Your task to perform on an android device: open app "WhatsApp Messenger" (install if not already installed), go to login, and select forgot password Image 0: 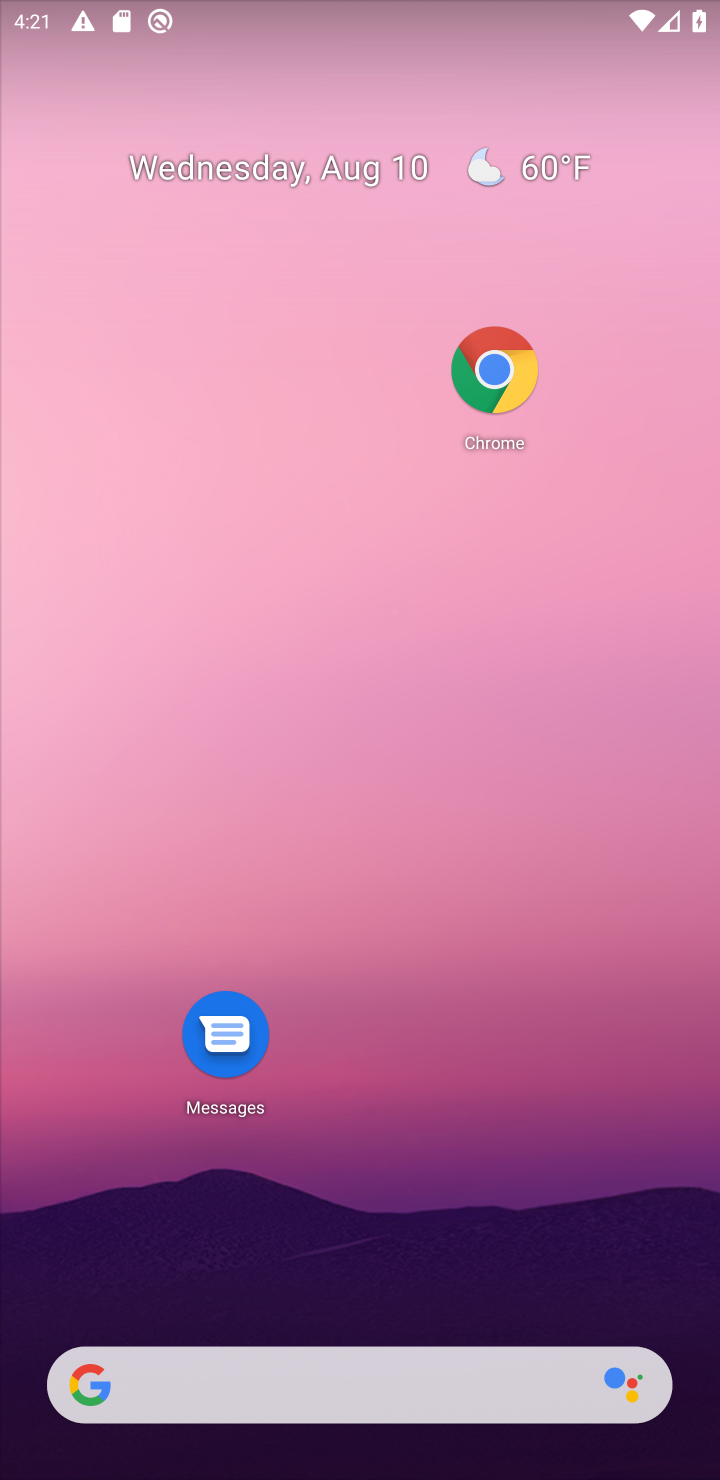
Step 0: drag from (384, 1007) to (443, 77)
Your task to perform on an android device: open app "WhatsApp Messenger" (install if not already installed), go to login, and select forgot password Image 1: 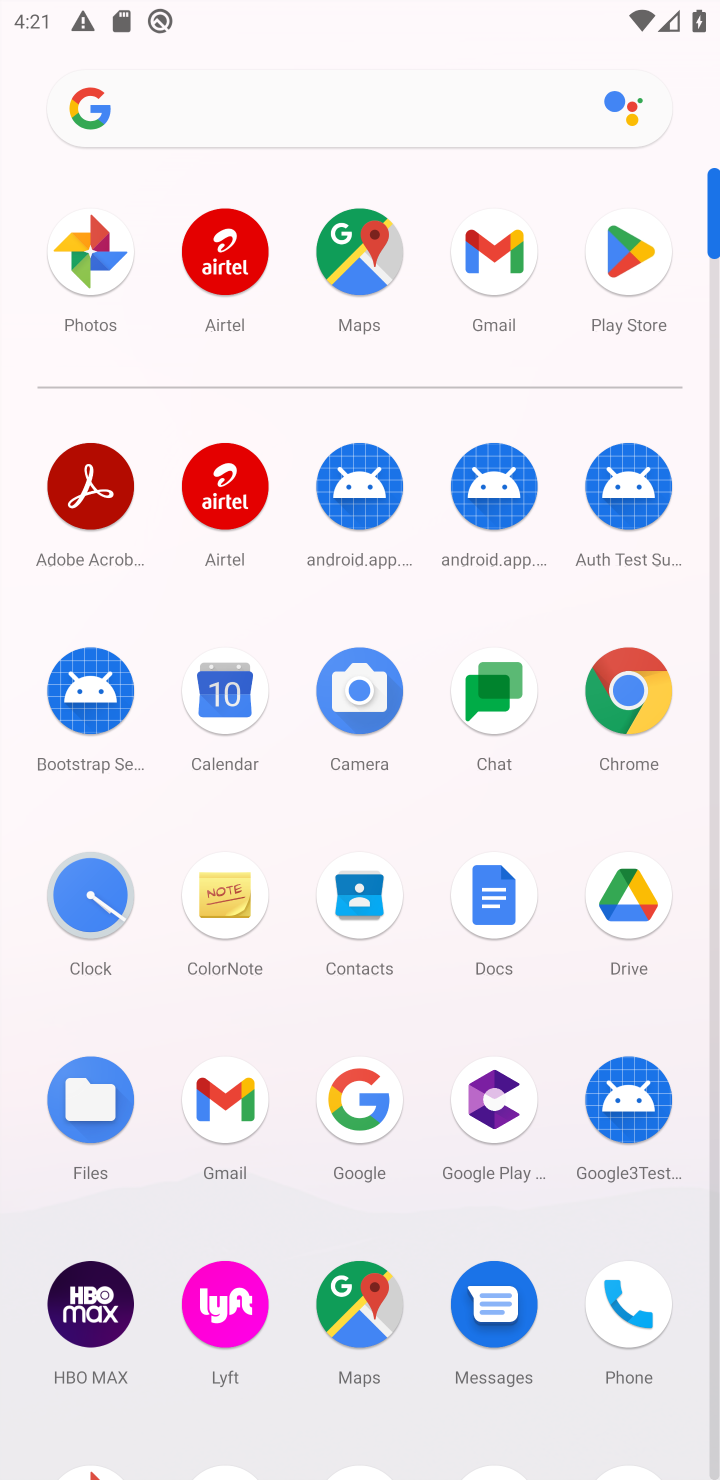
Step 1: click (661, 269)
Your task to perform on an android device: open app "WhatsApp Messenger" (install if not already installed), go to login, and select forgot password Image 2: 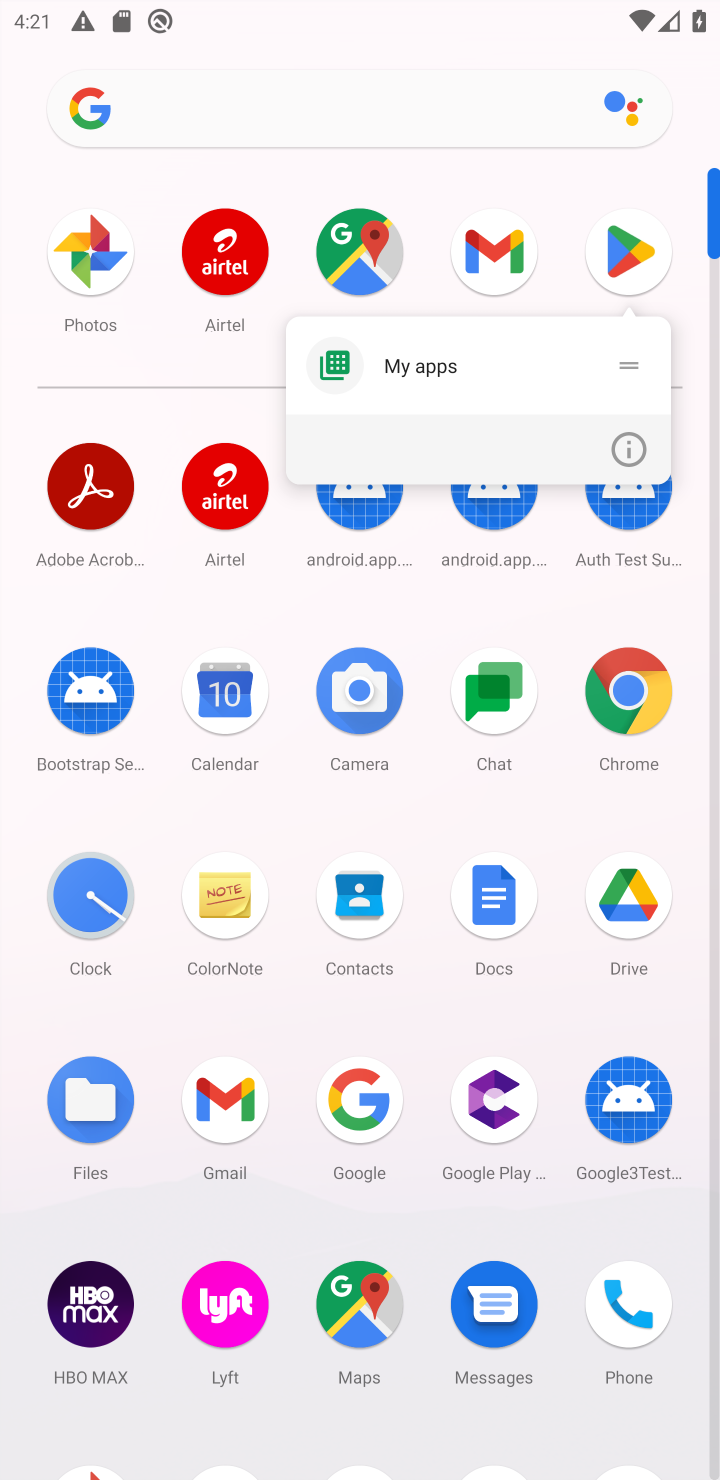
Step 2: click (605, 250)
Your task to perform on an android device: open app "WhatsApp Messenger" (install if not already installed), go to login, and select forgot password Image 3: 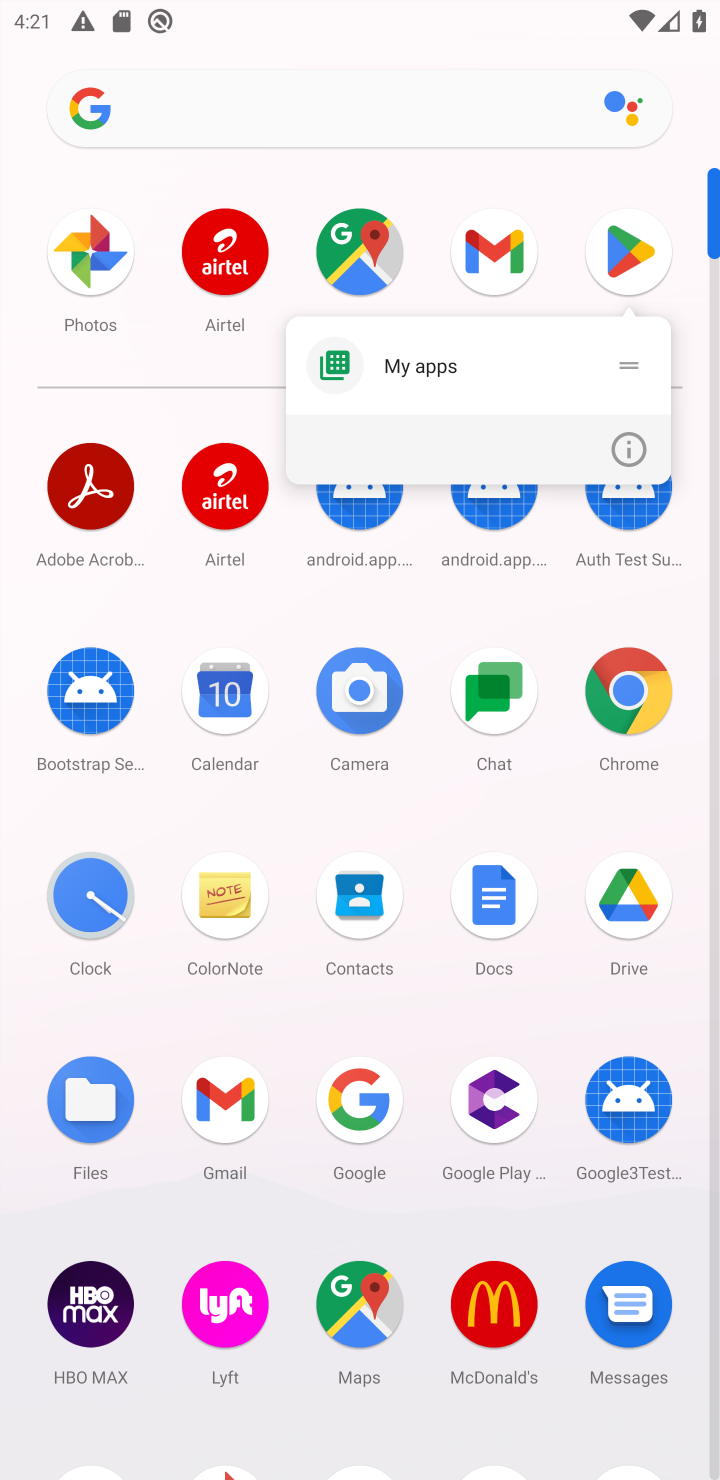
Step 3: click (613, 250)
Your task to perform on an android device: open app "WhatsApp Messenger" (install if not already installed), go to login, and select forgot password Image 4: 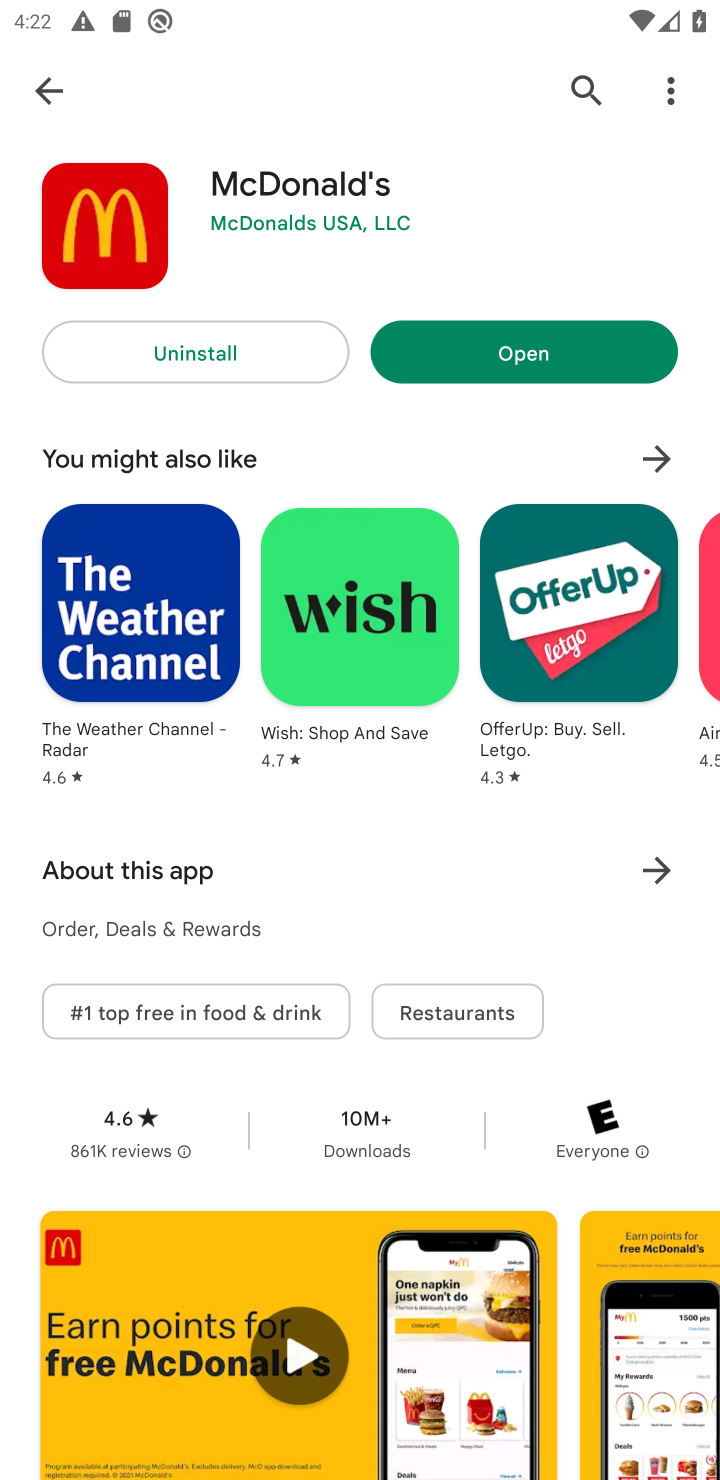
Step 4: click (70, 65)
Your task to perform on an android device: open app "WhatsApp Messenger" (install if not already installed), go to login, and select forgot password Image 5: 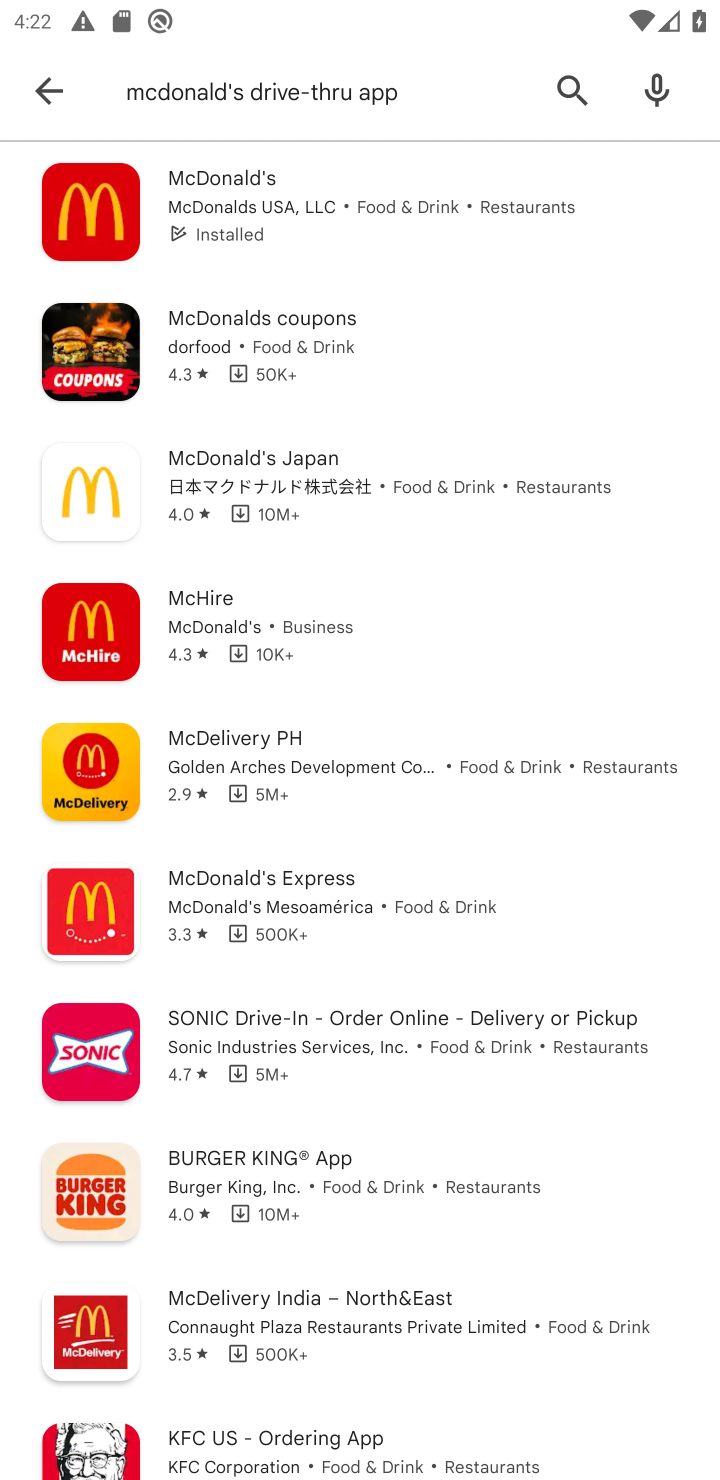
Step 5: click (571, 74)
Your task to perform on an android device: open app "WhatsApp Messenger" (install if not already installed), go to login, and select forgot password Image 6: 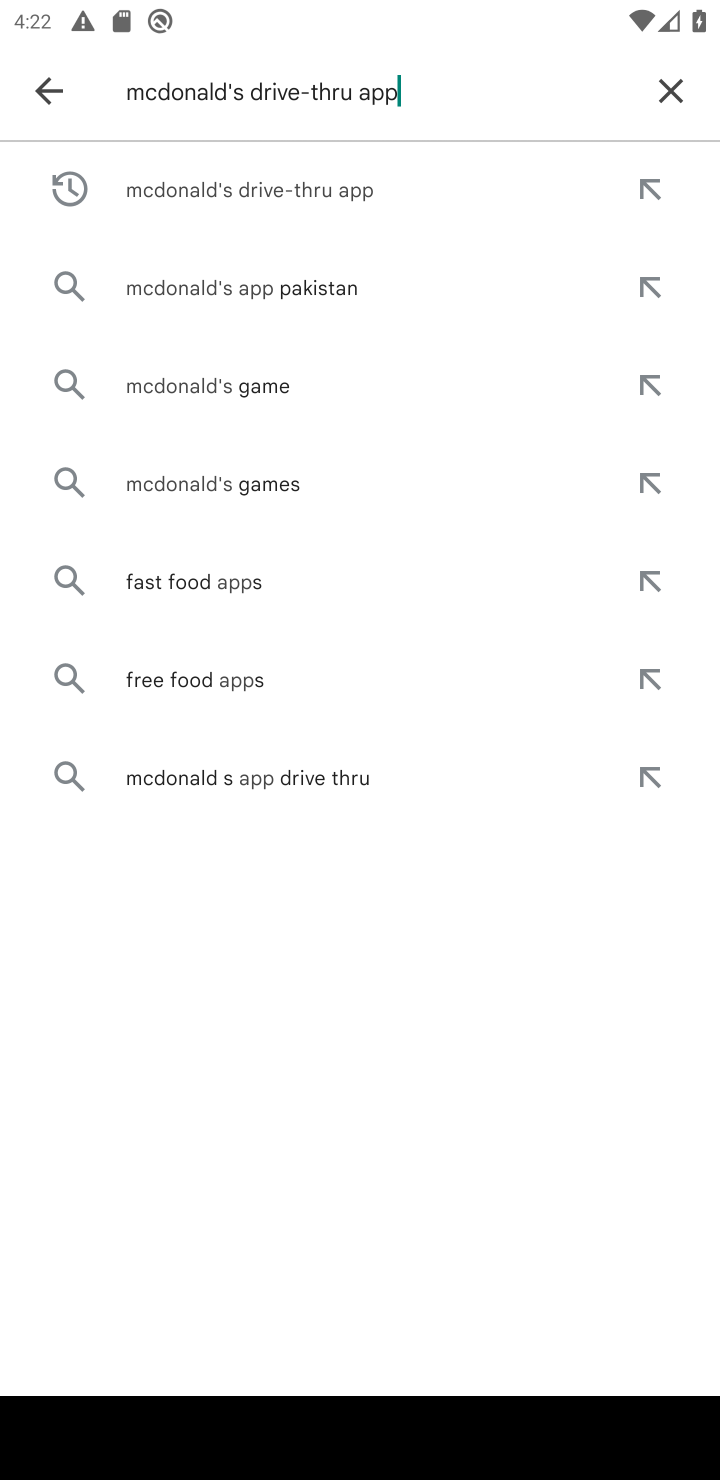
Step 6: click (680, 93)
Your task to perform on an android device: open app "WhatsApp Messenger" (install if not already installed), go to login, and select forgot password Image 7: 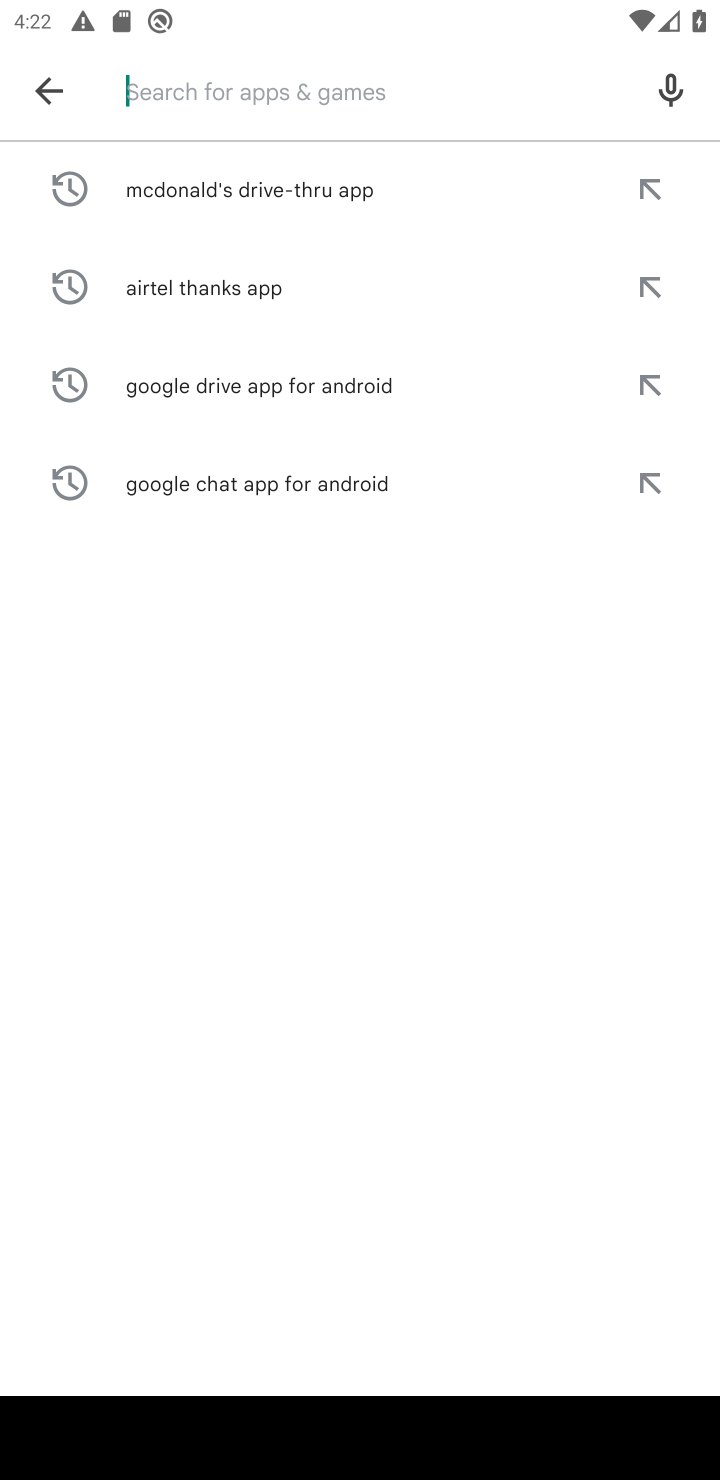
Step 7: click (425, 76)
Your task to perform on an android device: open app "WhatsApp Messenger" (install if not already installed), go to login, and select forgot password Image 8: 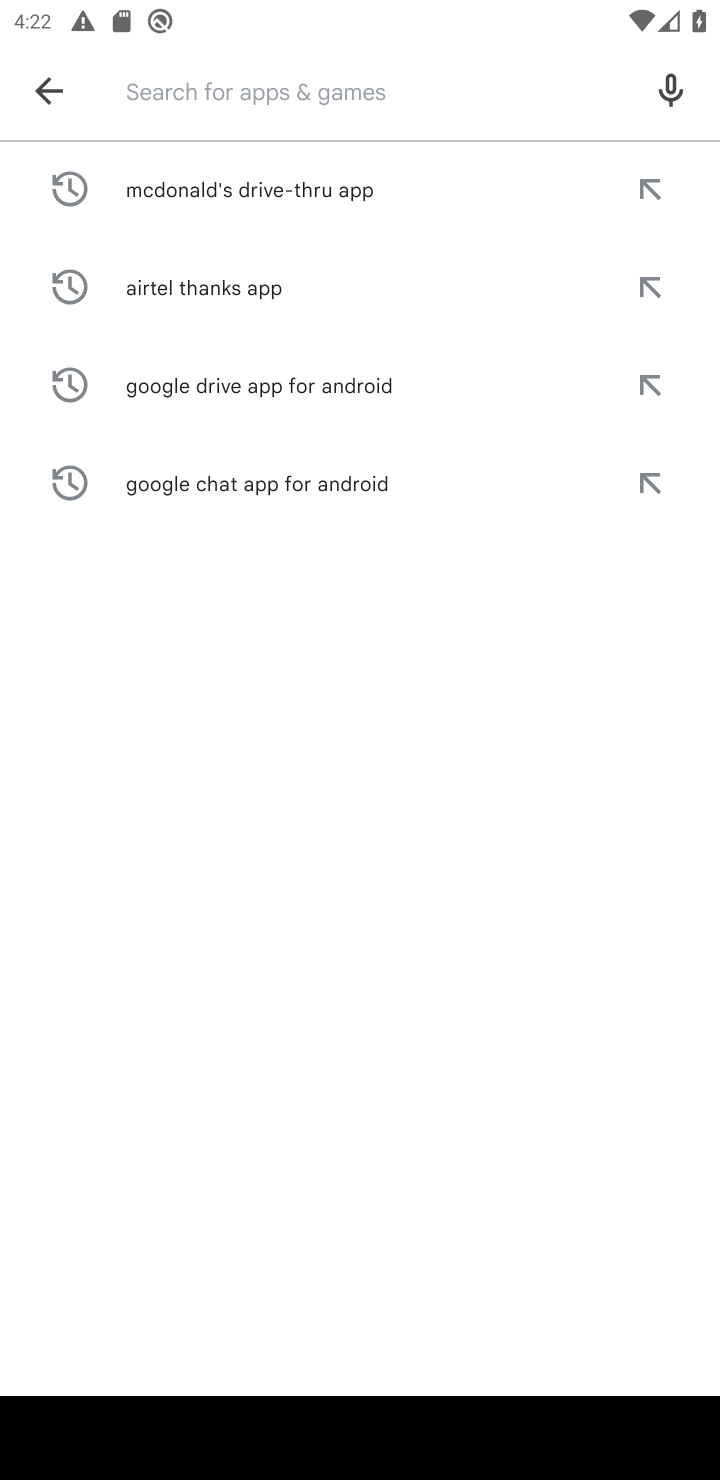
Step 8: type "WhatsApp Messenger "
Your task to perform on an android device: open app "WhatsApp Messenger" (install if not already installed), go to login, and select forgot password Image 9: 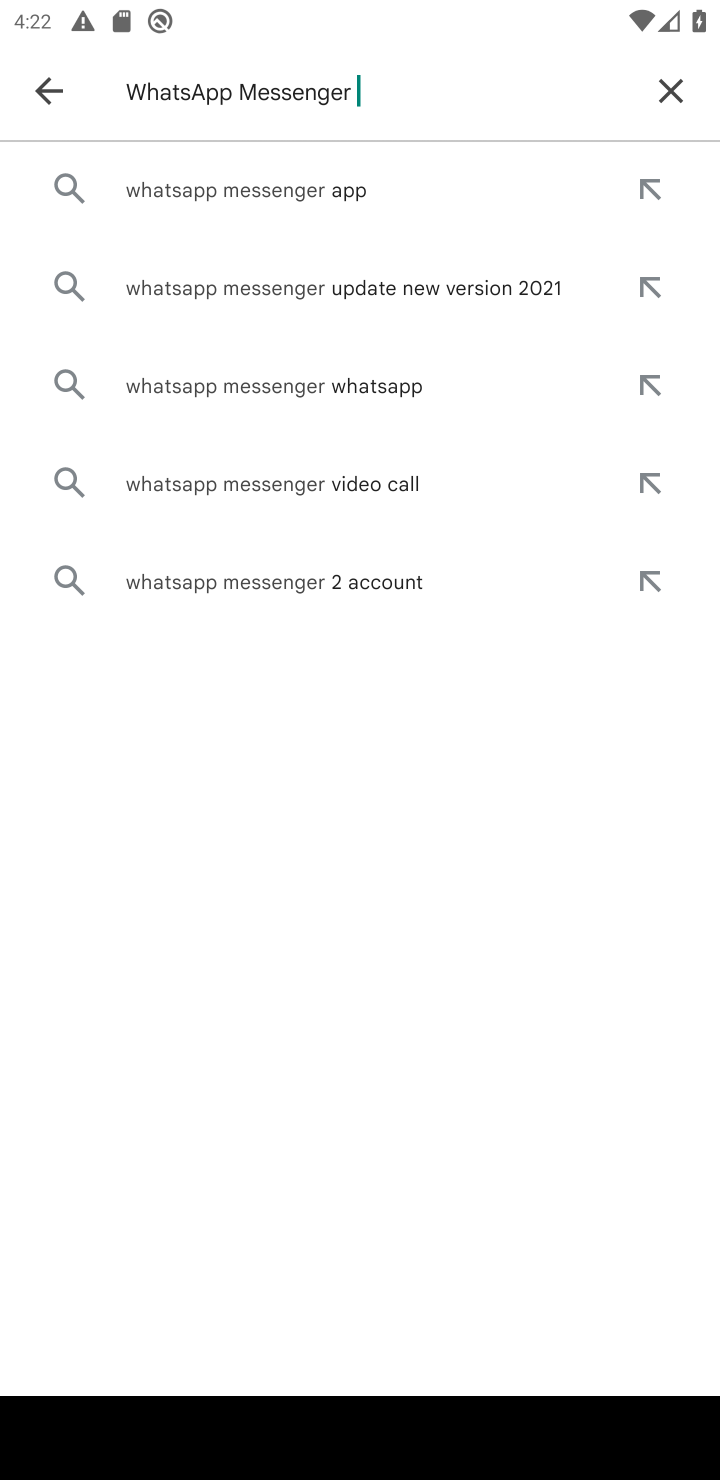
Step 9: click (310, 185)
Your task to perform on an android device: open app "WhatsApp Messenger" (install if not already installed), go to login, and select forgot password Image 10: 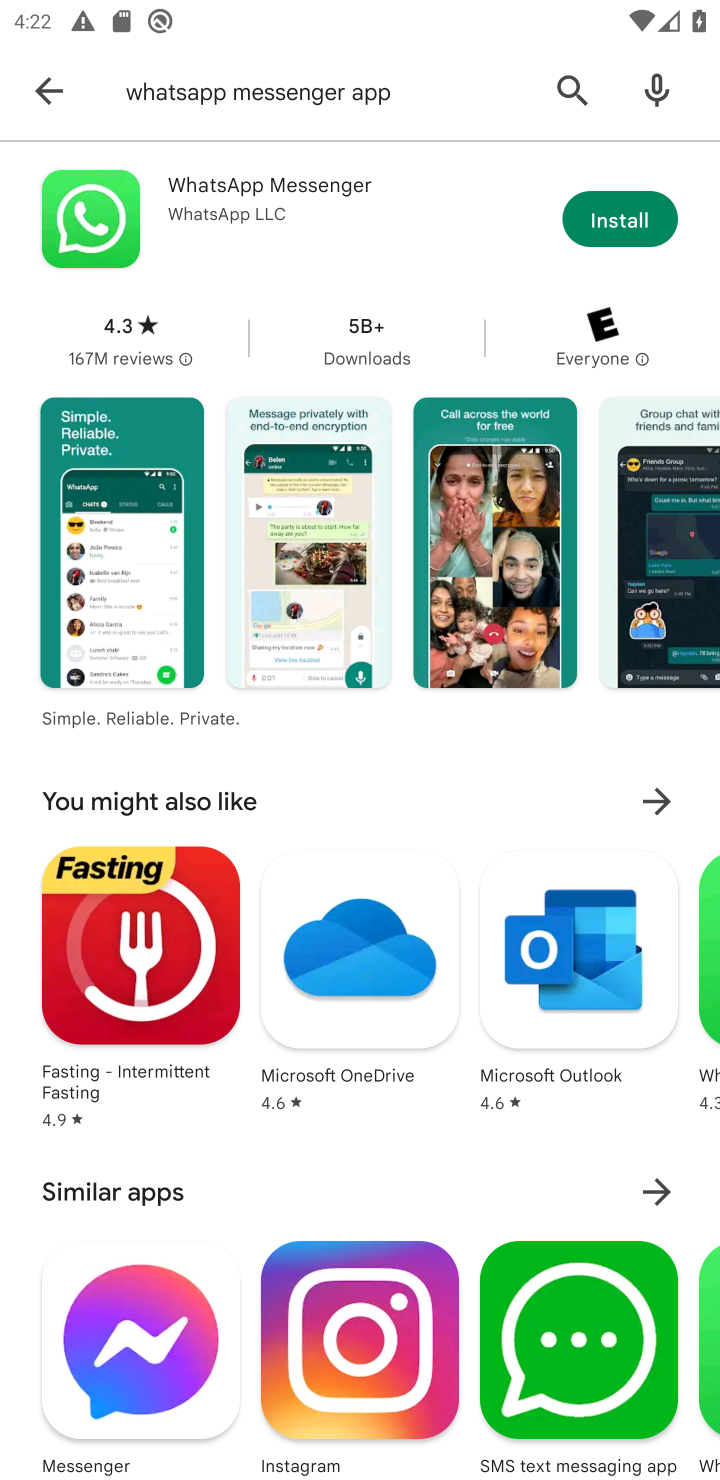
Step 10: click (593, 198)
Your task to perform on an android device: open app "WhatsApp Messenger" (install if not already installed), go to login, and select forgot password Image 11: 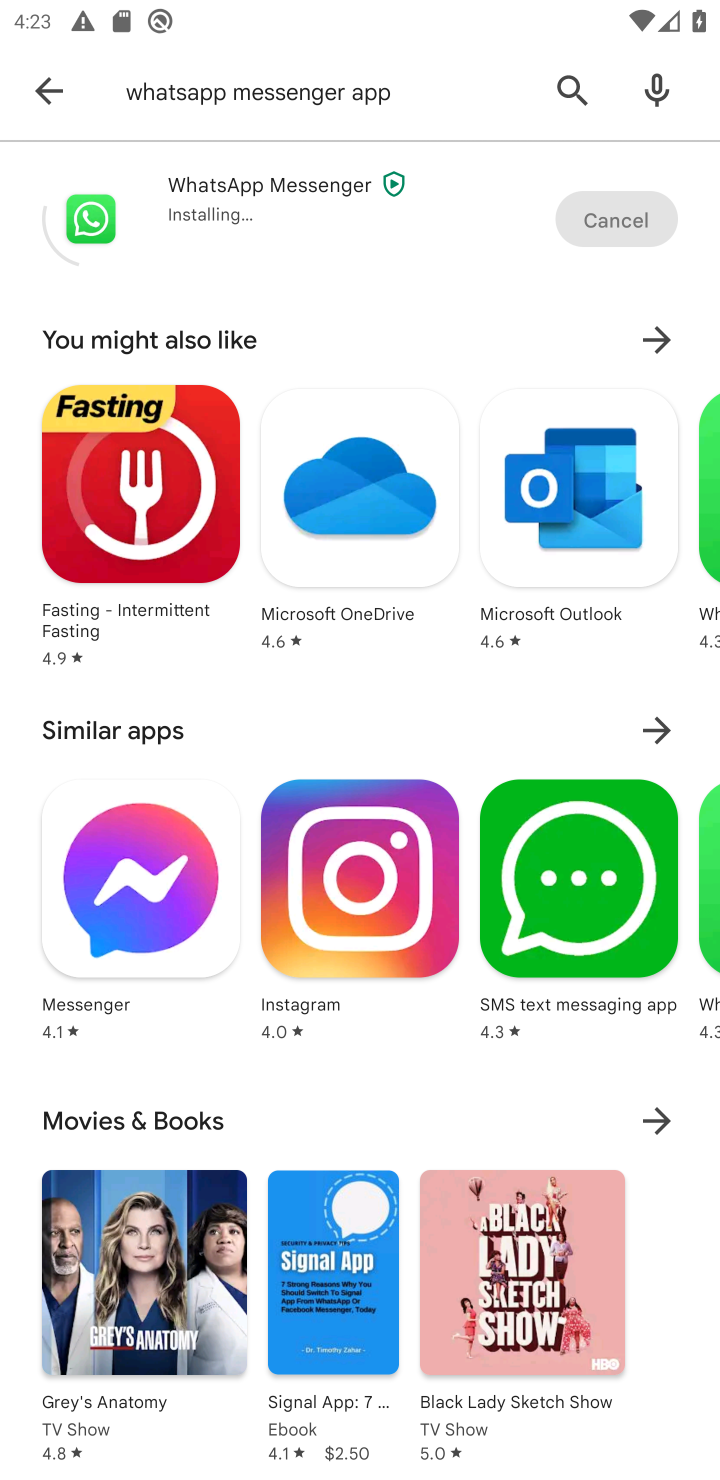
Step 11: task complete